Your task to perform on an android device: Open Reddit.com Image 0: 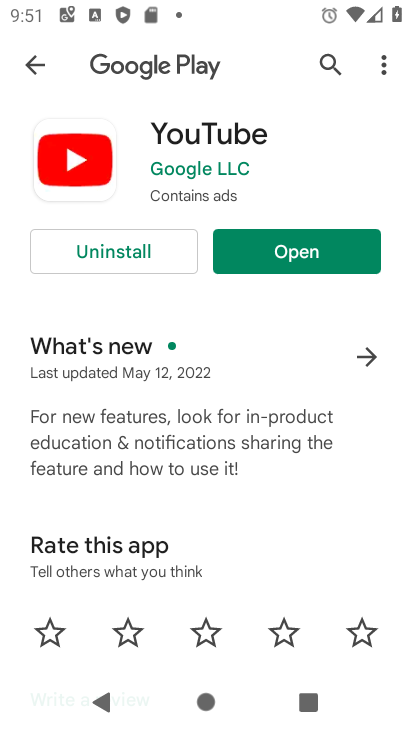
Step 0: press back button
Your task to perform on an android device: Open Reddit.com Image 1: 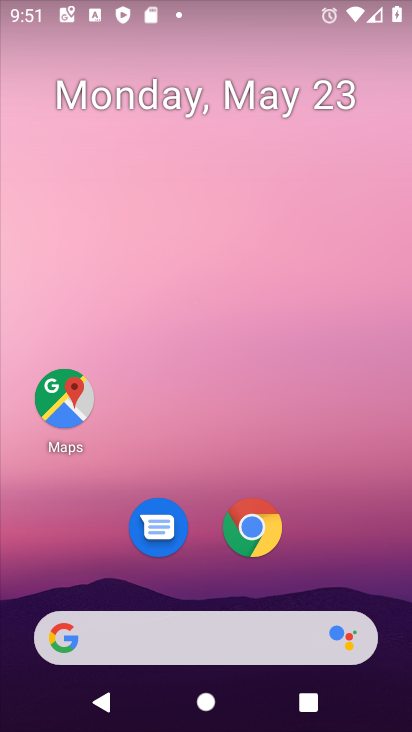
Step 1: drag from (325, 498) to (262, 14)
Your task to perform on an android device: Open Reddit.com Image 2: 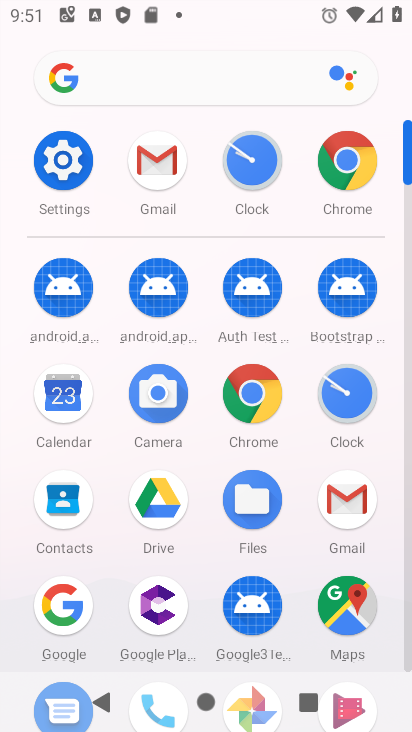
Step 2: click (248, 387)
Your task to perform on an android device: Open Reddit.com Image 3: 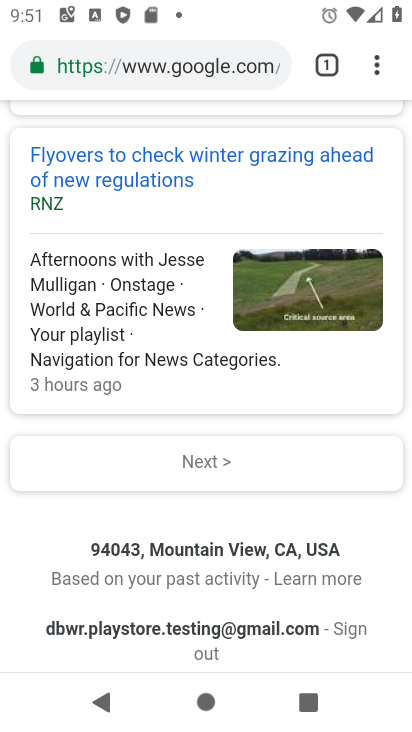
Step 3: click (138, 56)
Your task to perform on an android device: Open Reddit.com Image 4: 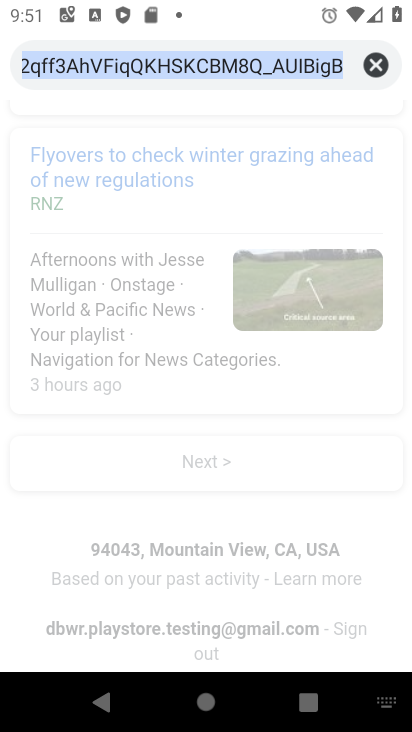
Step 4: click (373, 64)
Your task to perform on an android device: Open Reddit.com Image 5: 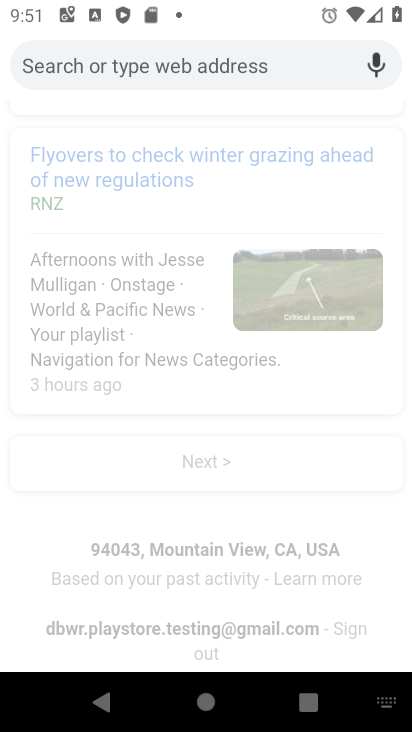
Step 5: type "Reddit.com"
Your task to perform on an android device: Open Reddit.com Image 6: 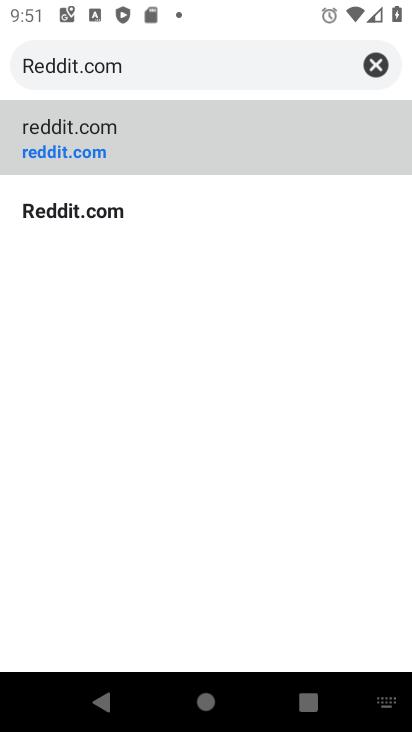
Step 6: click (132, 144)
Your task to perform on an android device: Open Reddit.com Image 7: 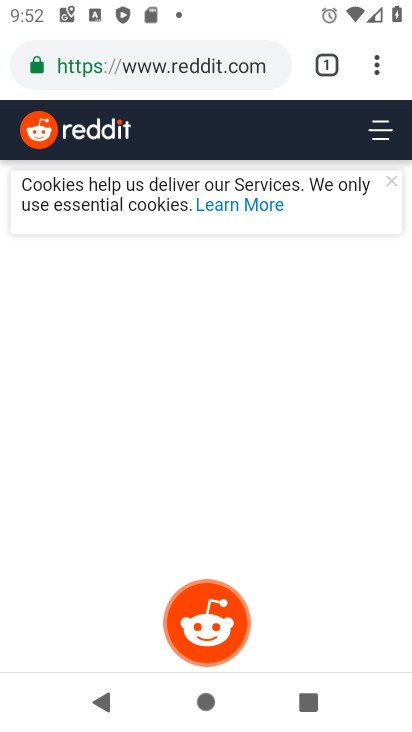
Step 7: task complete